Your task to perform on an android device: Open ESPN.com Image 0: 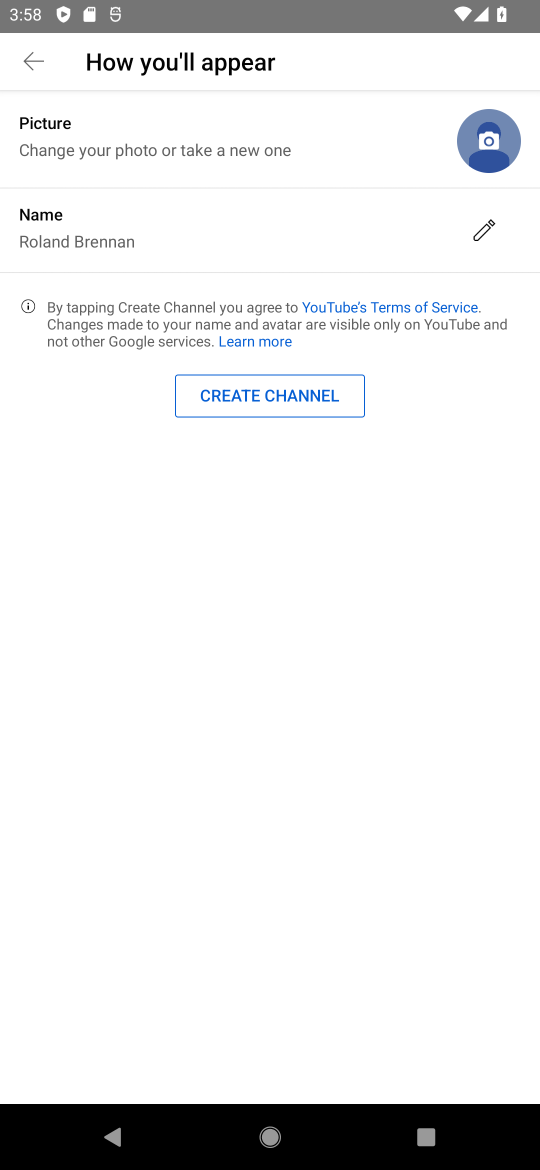
Step 0: press home button
Your task to perform on an android device: Open ESPN.com Image 1: 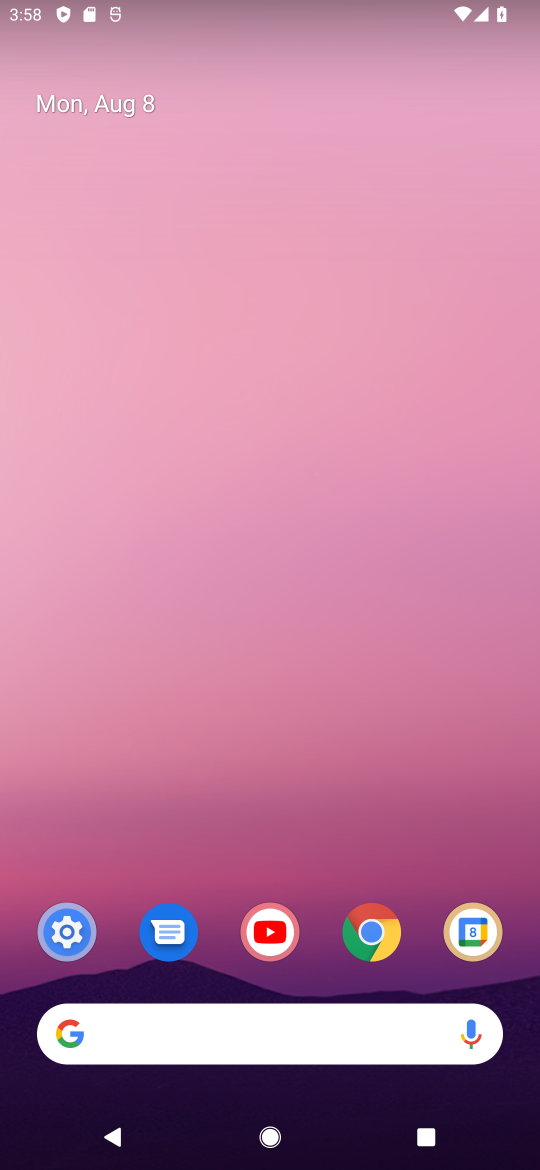
Step 1: click (379, 1032)
Your task to perform on an android device: Open ESPN.com Image 2: 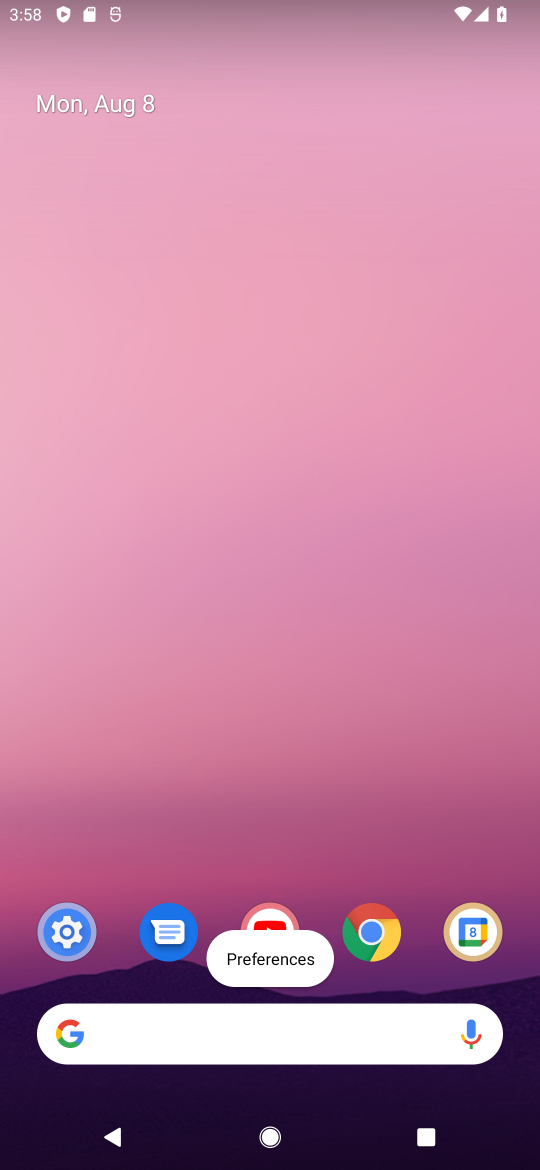
Step 2: click (347, 1043)
Your task to perform on an android device: Open ESPN.com Image 3: 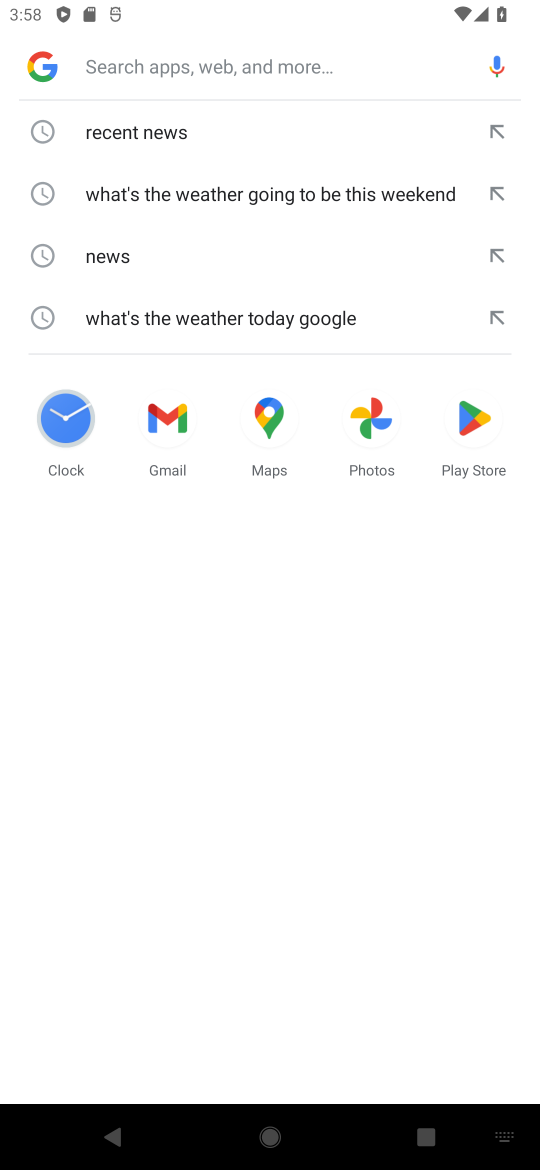
Step 3: type "espn.com"
Your task to perform on an android device: Open ESPN.com Image 4: 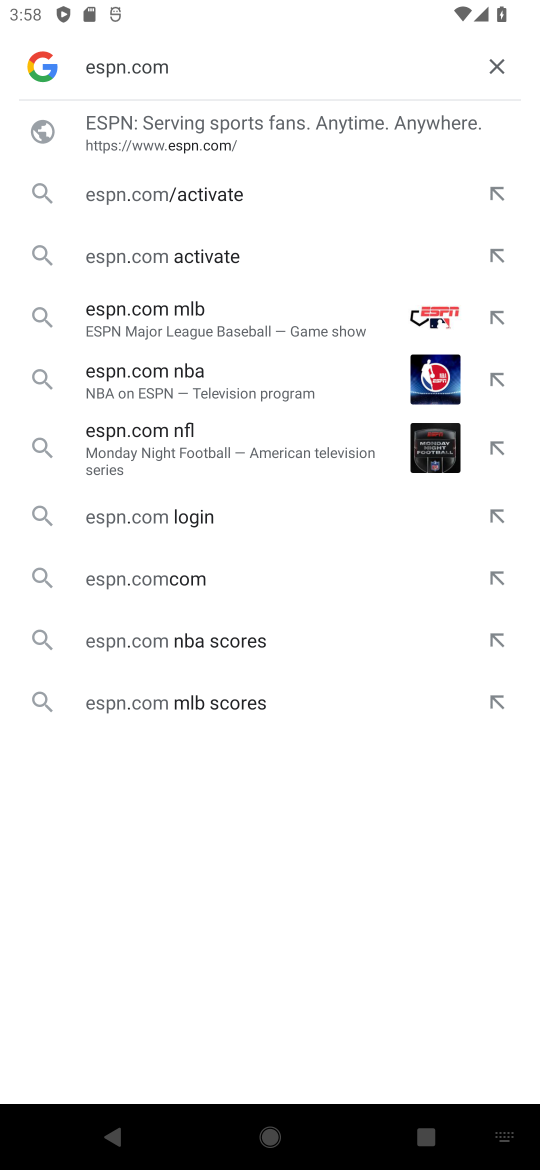
Step 4: click (177, 130)
Your task to perform on an android device: Open ESPN.com Image 5: 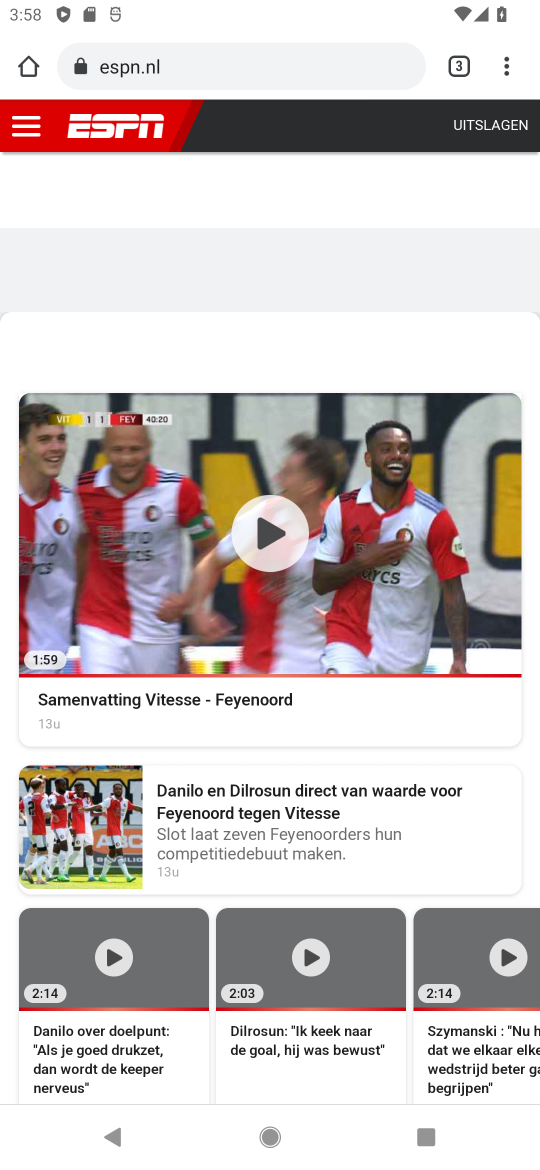
Step 5: task complete